Your task to perform on an android device: show emergency info Image 0: 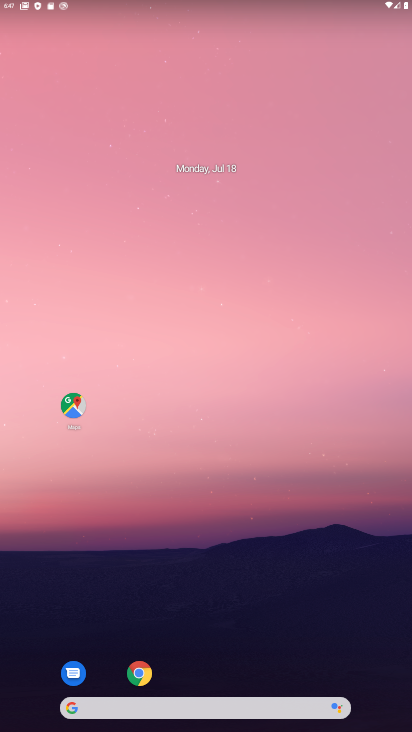
Step 0: click (397, 488)
Your task to perform on an android device: show emergency info Image 1: 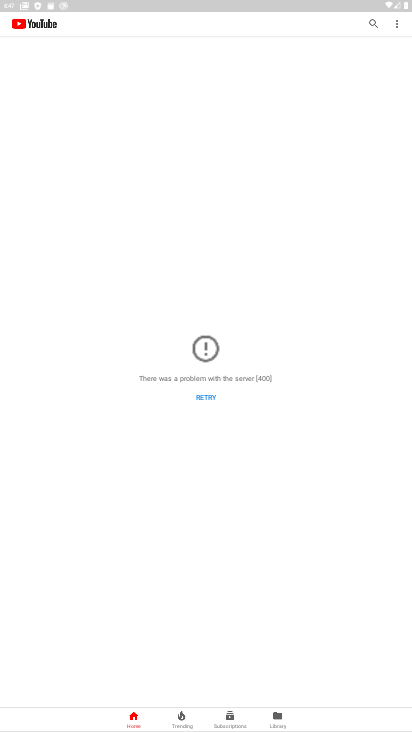
Step 1: press home button
Your task to perform on an android device: show emergency info Image 2: 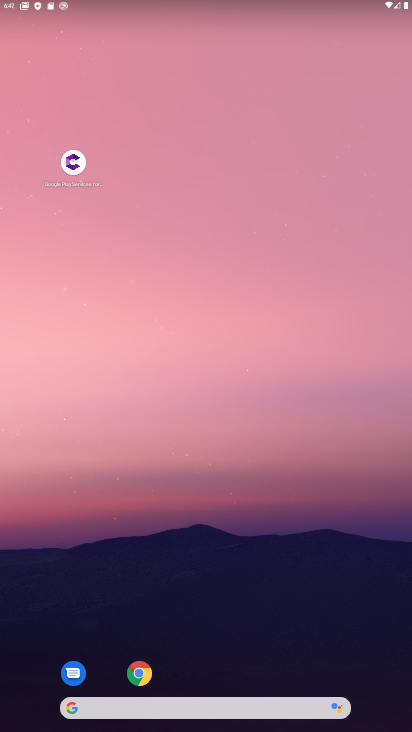
Step 2: drag from (218, 587) to (190, 3)
Your task to perform on an android device: show emergency info Image 3: 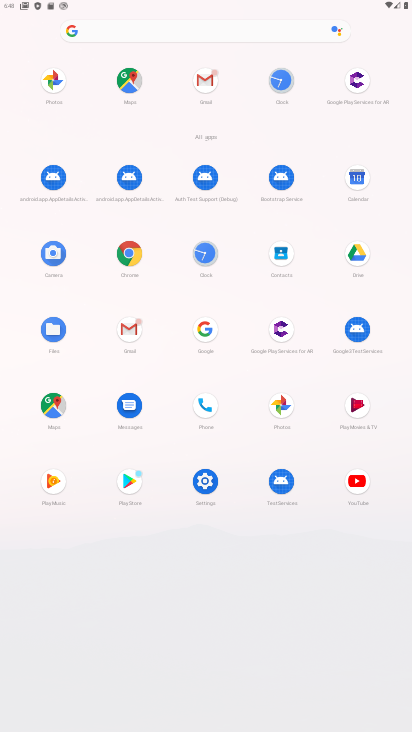
Step 3: click (202, 483)
Your task to perform on an android device: show emergency info Image 4: 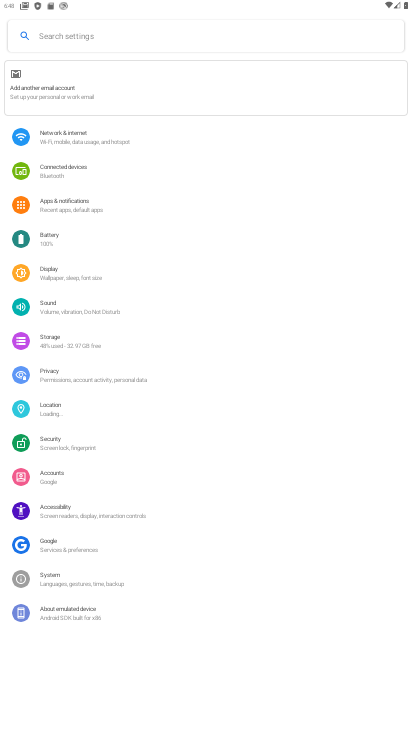
Step 4: click (71, 604)
Your task to perform on an android device: show emergency info Image 5: 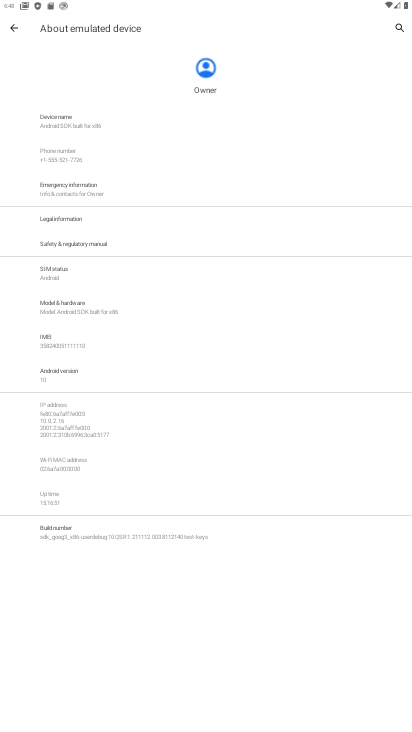
Step 5: click (87, 183)
Your task to perform on an android device: show emergency info Image 6: 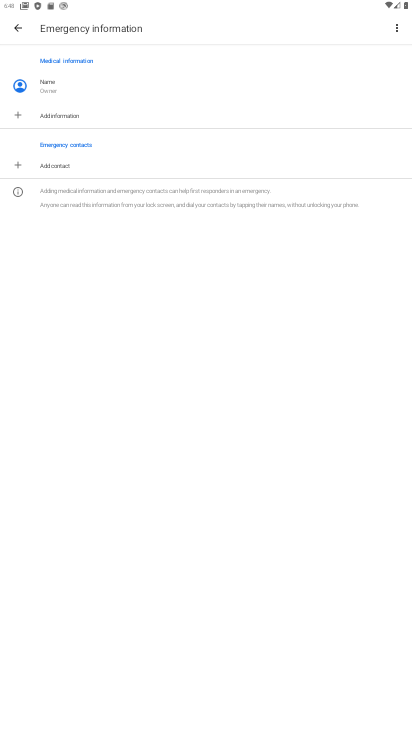
Step 6: task complete